Your task to perform on an android device: manage bookmarks in the chrome app Image 0: 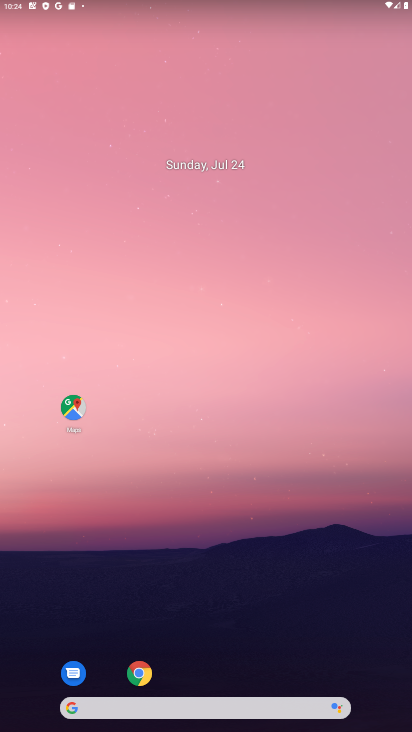
Step 0: click (141, 670)
Your task to perform on an android device: manage bookmarks in the chrome app Image 1: 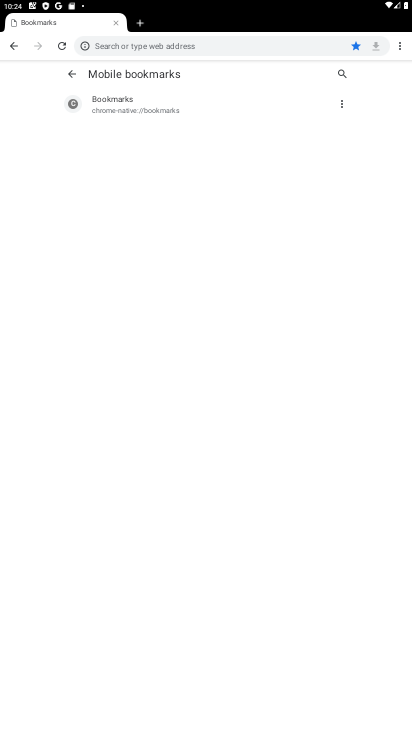
Step 1: click (396, 42)
Your task to perform on an android device: manage bookmarks in the chrome app Image 2: 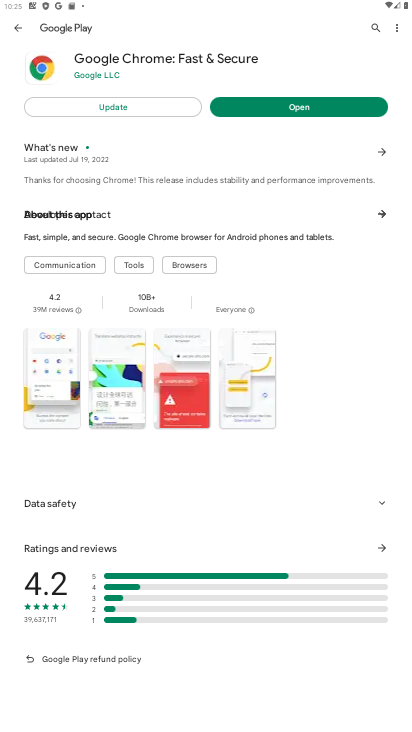
Step 2: press home button
Your task to perform on an android device: manage bookmarks in the chrome app Image 3: 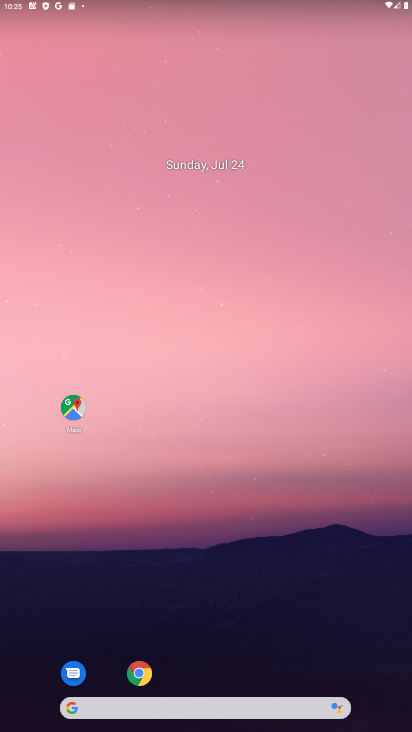
Step 3: click (129, 674)
Your task to perform on an android device: manage bookmarks in the chrome app Image 4: 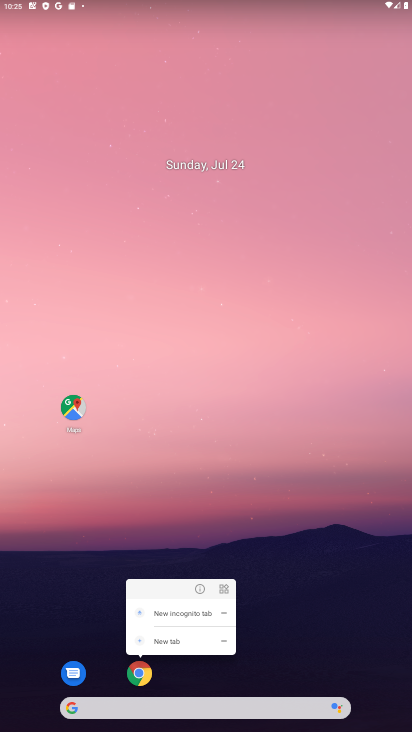
Step 4: click (134, 677)
Your task to perform on an android device: manage bookmarks in the chrome app Image 5: 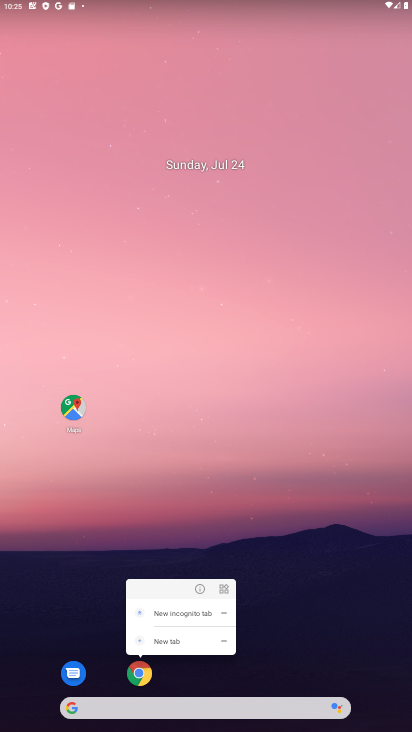
Step 5: task complete